Your task to perform on an android device: toggle show notifications on the lock screen Image 0: 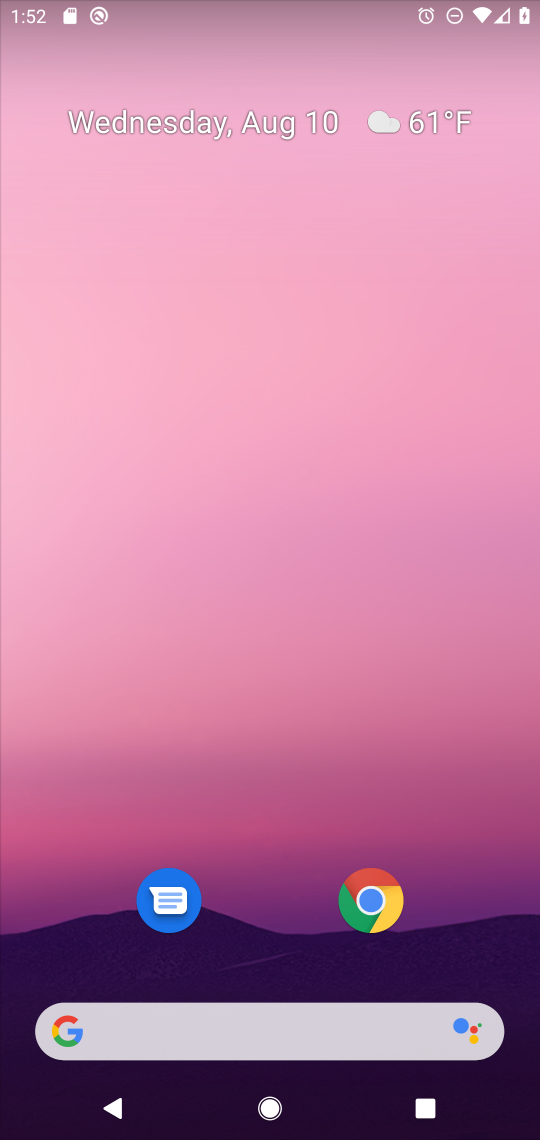
Step 0: drag from (276, 875) to (320, 1)
Your task to perform on an android device: toggle show notifications on the lock screen Image 1: 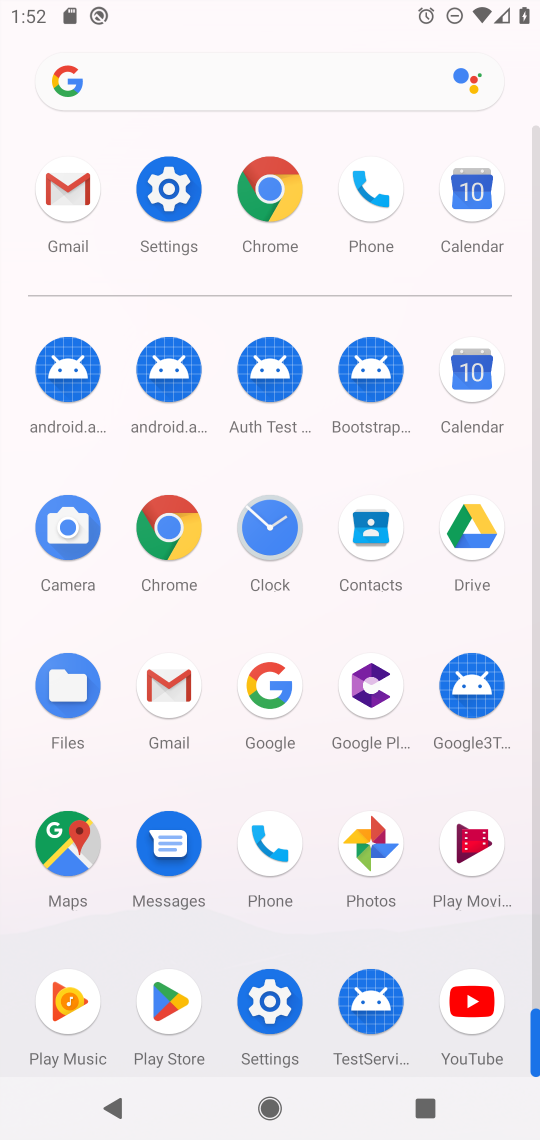
Step 1: click (172, 192)
Your task to perform on an android device: toggle show notifications on the lock screen Image 2: 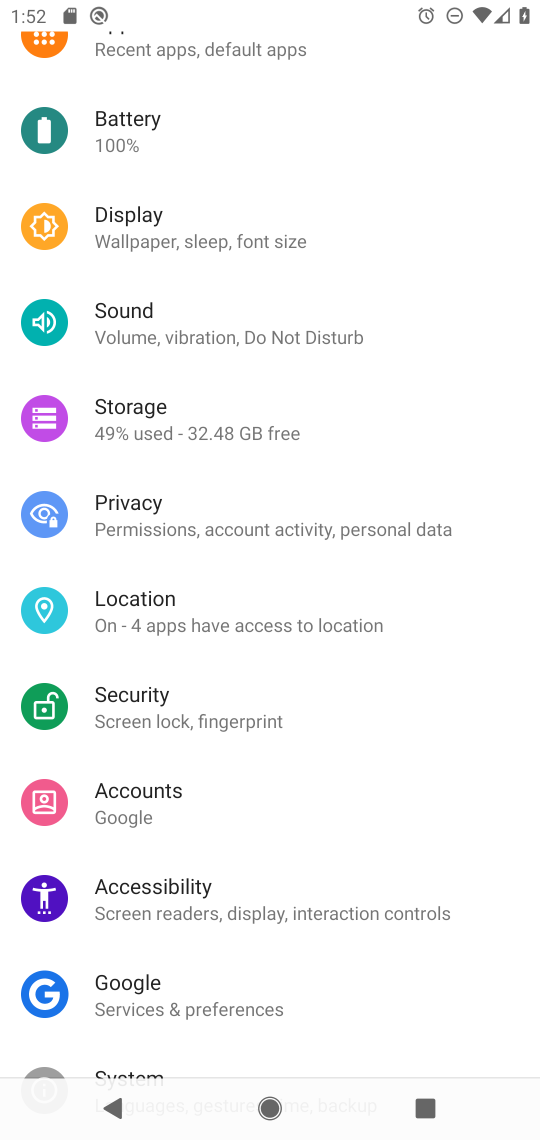
Step 2: drag from (282, 191) to (265, 994)
Your task to perform on an android device: toggle show notifications on the lock screen Image 3: 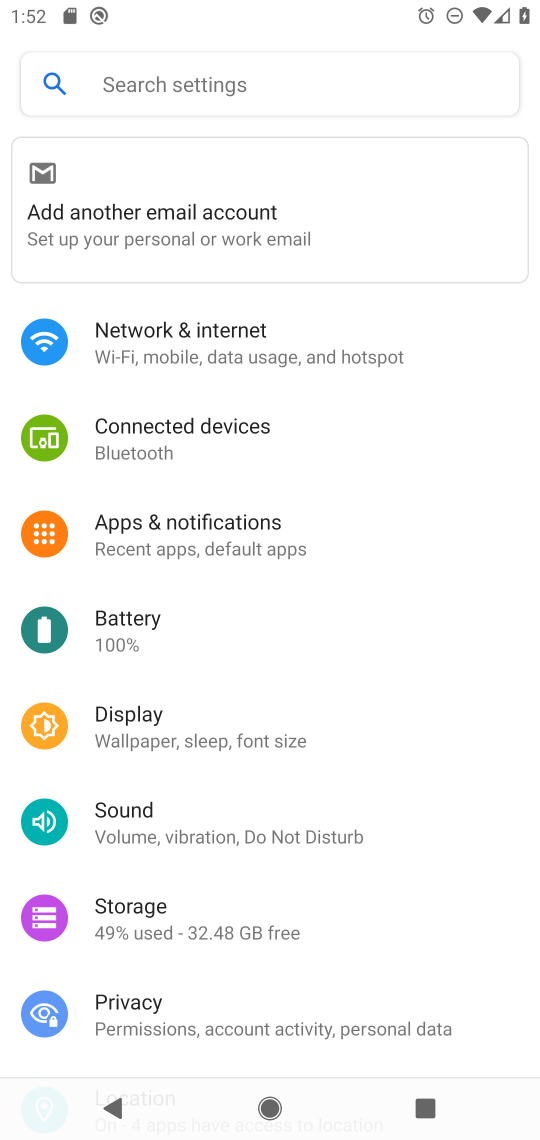
Step 3: click (270, 545)
Your task to perform on an android device: toggle show notifications on the lock screen Image 4: 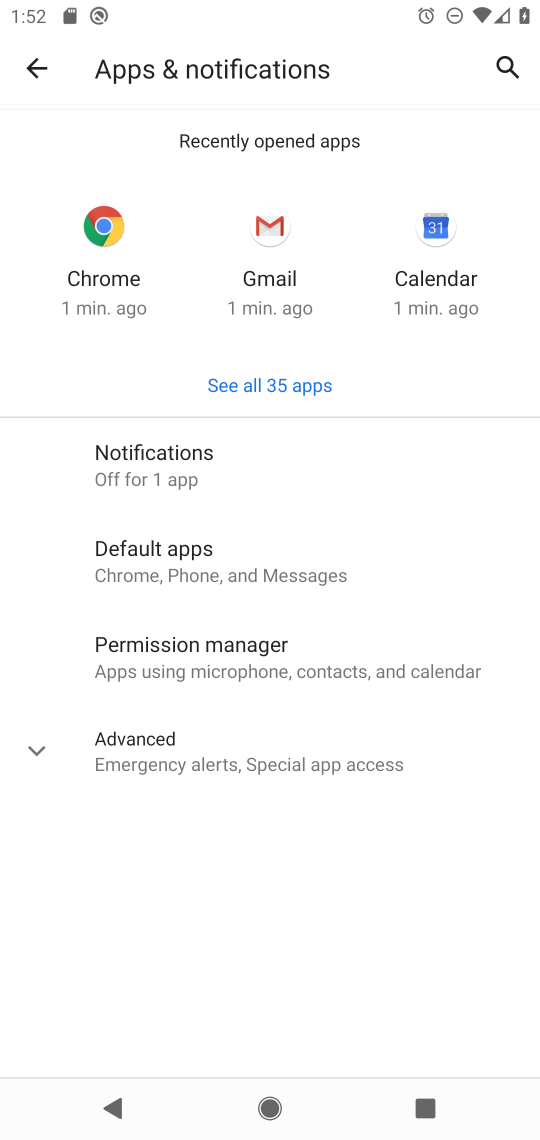
Step 4: click (191, 465)
Your task to perform on an android device: toggle show notifications on the lock screen Image 5: 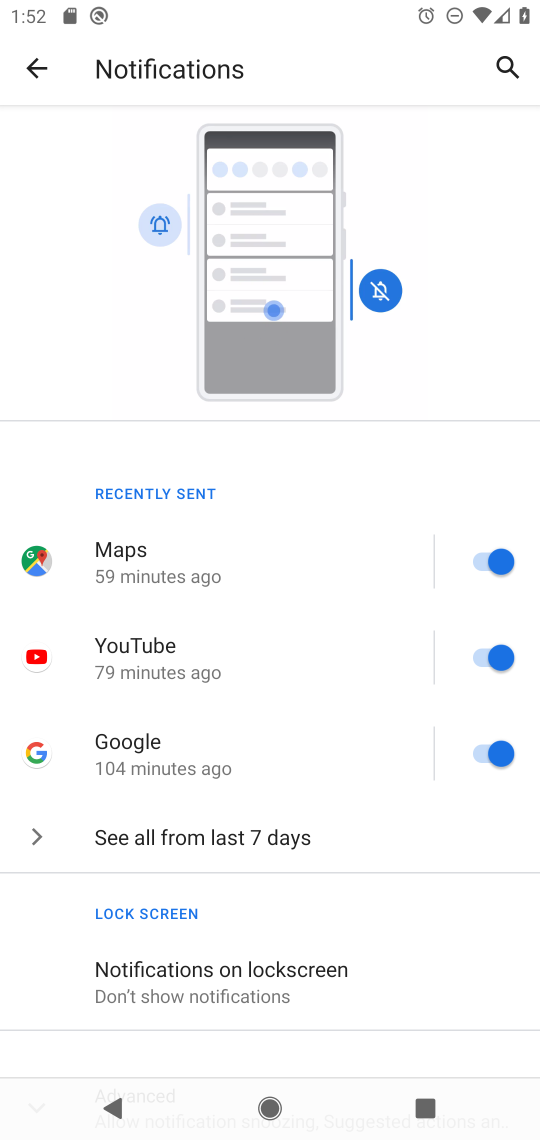
Step 5: drag from (248, 901) to (266, 423)
Your task to perform on an android device: toggle show notifications on the lock screen Image 6: 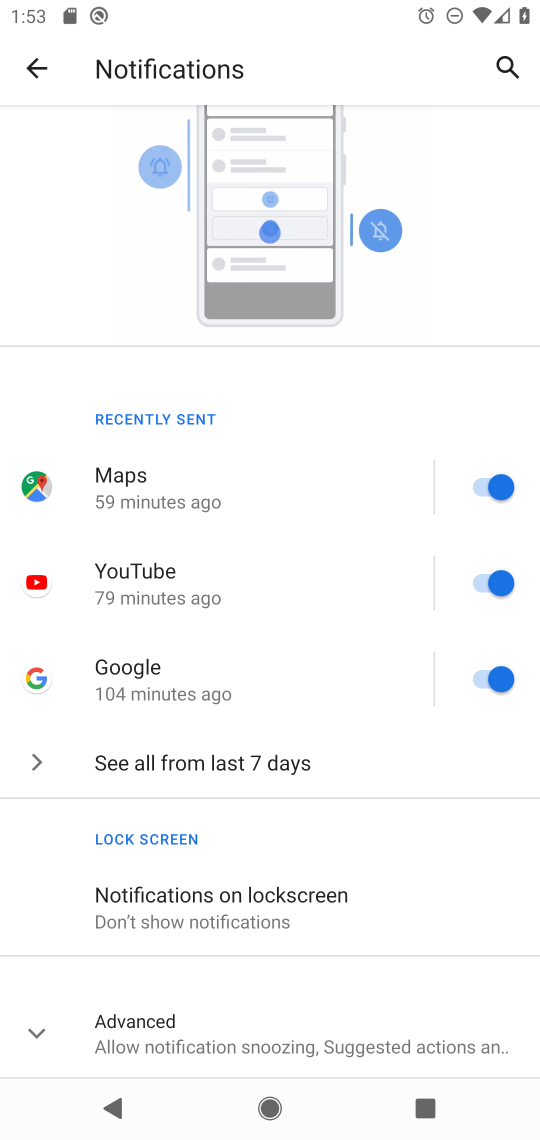
Step 6: click (237, 906)
Your task to perform on an android device: toggle show notifications on the lock screen Image 7: 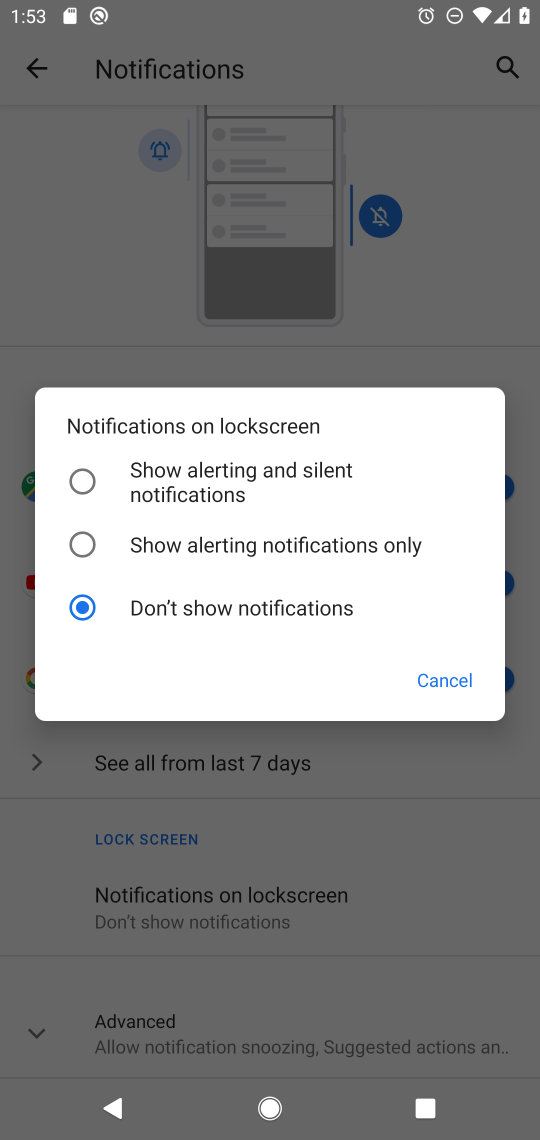
Step 7: click (85, 475)
Your task to perform on an android device: toggle show notifications on the lock screen Image 8: 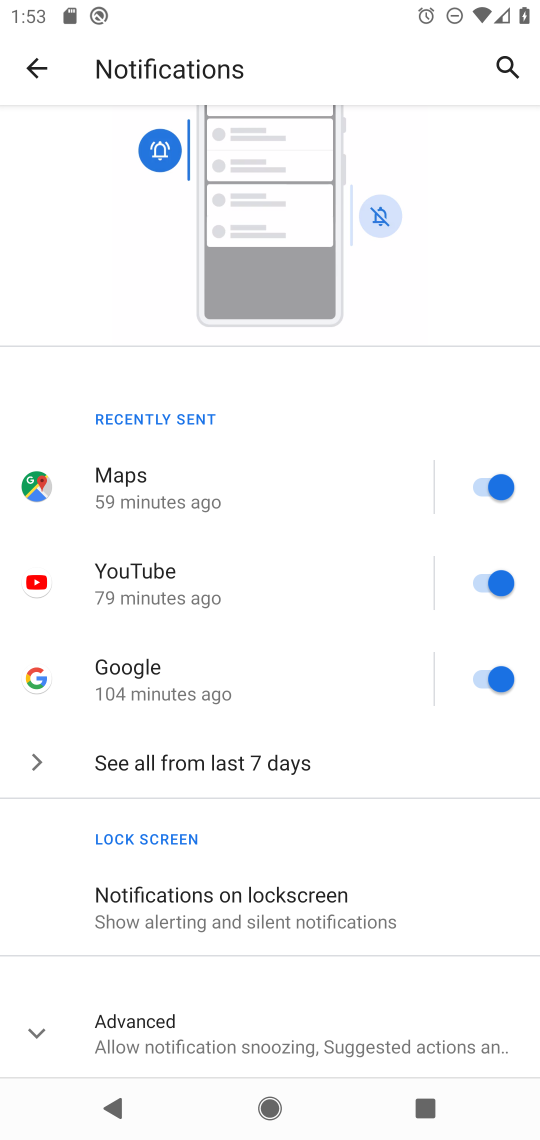
Step 8: task complete